Your task to perform on an android device: change the upload size in google photos Image 0: 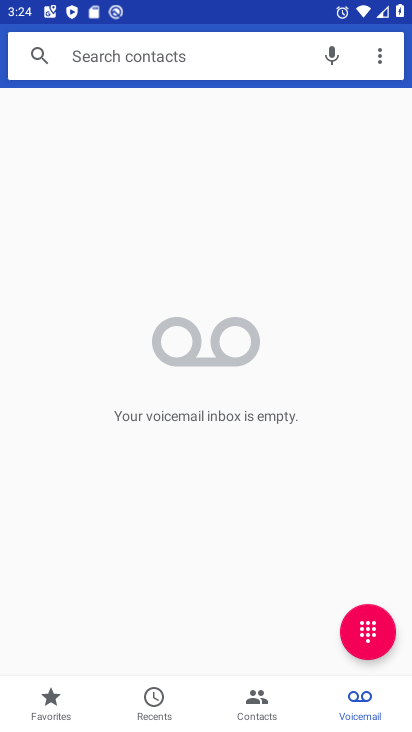
Step 0: press home button
Your task to perform on an android device: change the upload size in google photos Image 1: 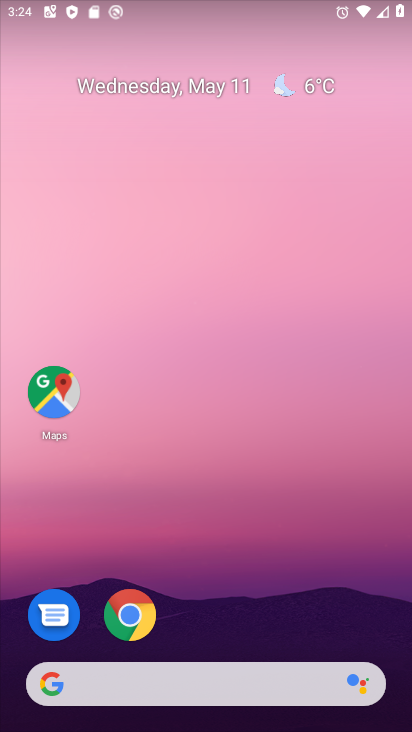
Step 1: drag from (274, 557) to (323, 158)
Your task to perform on an android device: change the upload size in google photos Image 2: 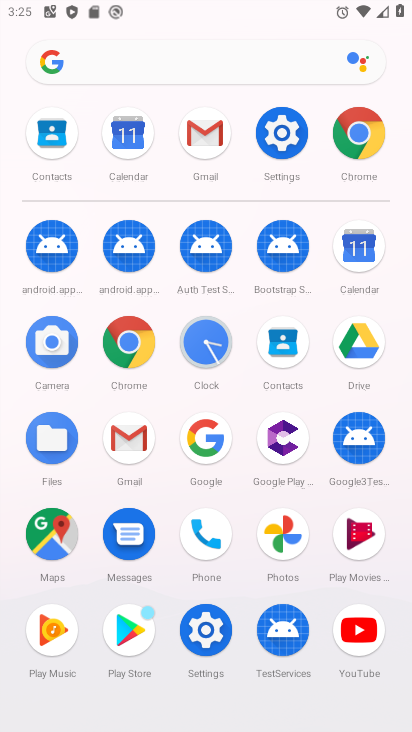
Step 2: click (283, 539)
Your task to perform on an android device: change the upload size in google photos Image 3: 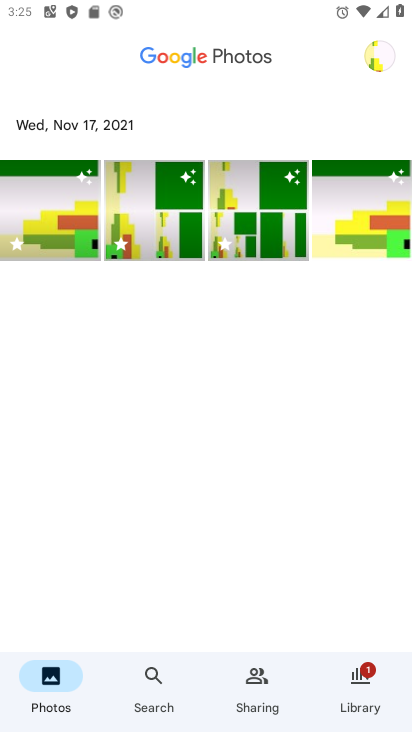
Step 3: click (376, 50)
Your task to perform on an android device: change the upload size in google photos Image 4: 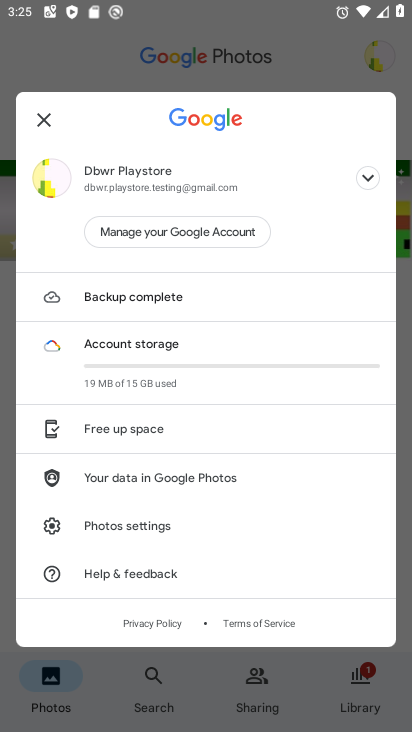
Step 4: click (107, 524)
Your task to perform on an android device: change the upload size in google photos Image 5: 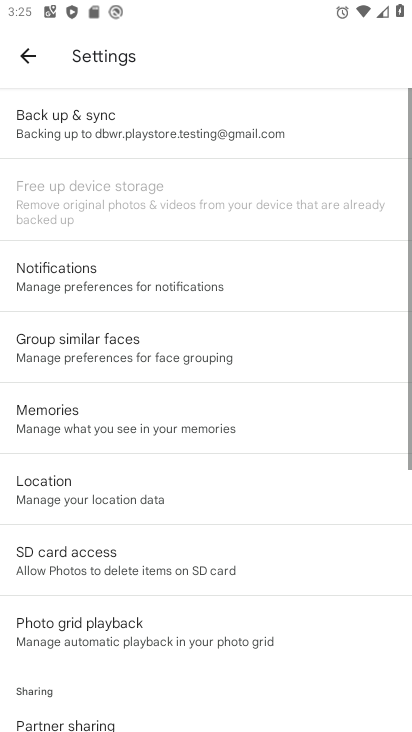
Step 5: click (196, 130)
Your task to perform on an android device: change the upload size in google photos Image 6: 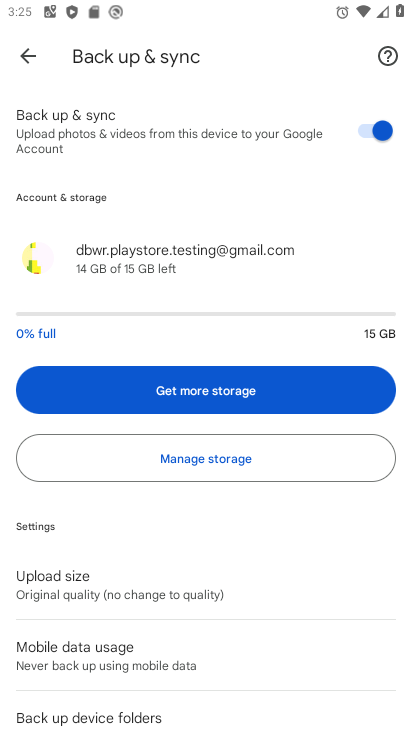
Step 6: click (124, 589)
Your task to perform on an android device: change the upload size in google photos Image 7: 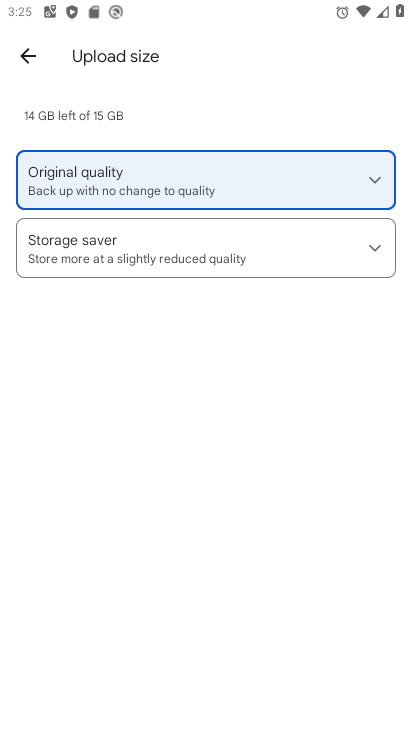
Step 7: click (166, 255)
Your task to perform on an android device: change the upload size in google photos Image 8: 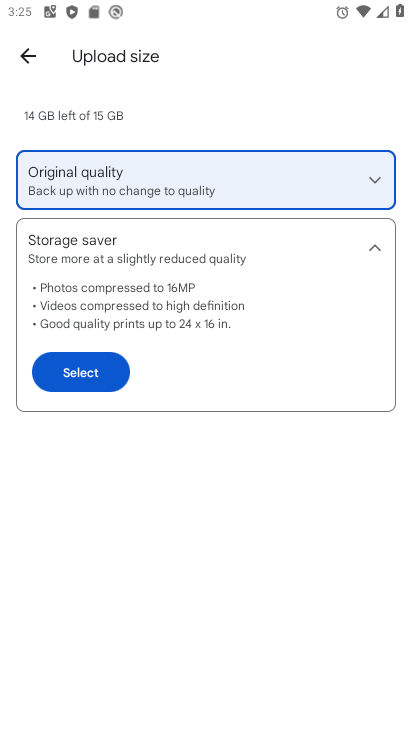
Step 8: click (85, 370)
Your task to perform on an android device: change the upload size in google photos Image 9: 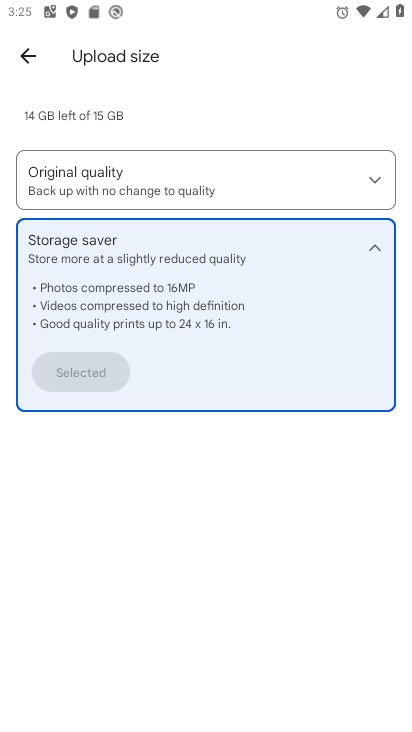
Step 9: task complete